Your task to perform on an android device: Open the calendar app, open the side menu, and click the "Day" option Image 0: 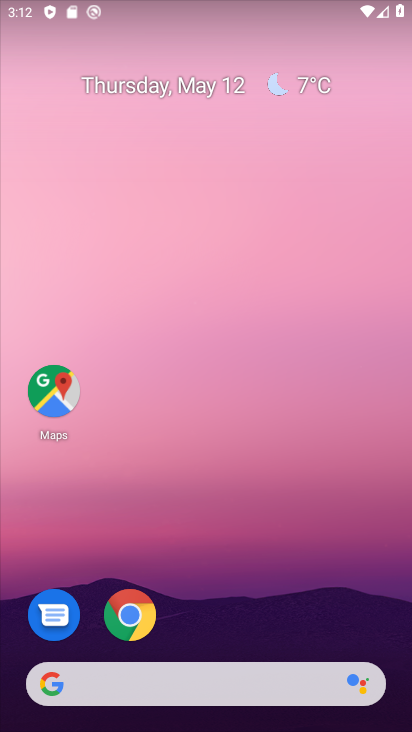
Step 0: drag from (225, 622) to (210, 0)
Your task to perform on an android device: Open the calendar app, open the side menu, and click the "Day" option Image 1: 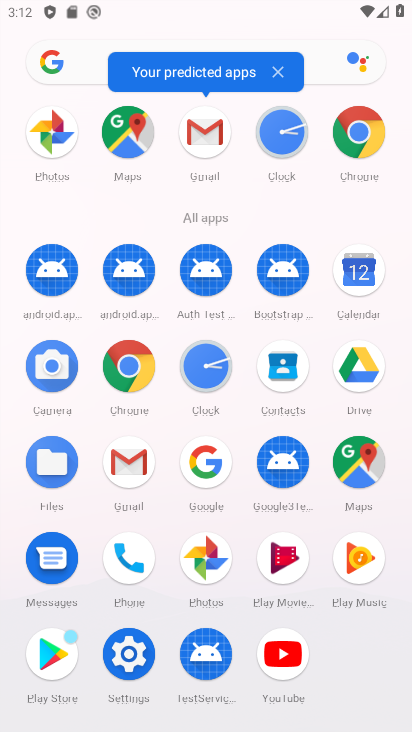
Step 1: click (351, 268)
Your task to perform on an android device: Open the calendar app, open the side menu, and click the "Day" option Image 2: 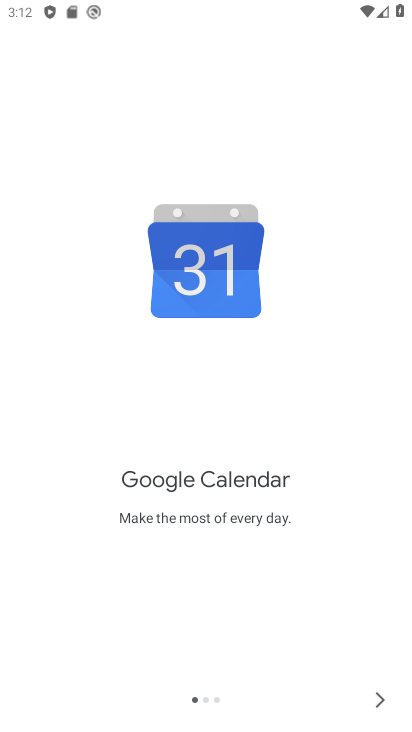
Step 2: click (380, 694)
Your task to perform on an android device: Open the calendar app, open the side menu, and click the "Day" option Image 3: 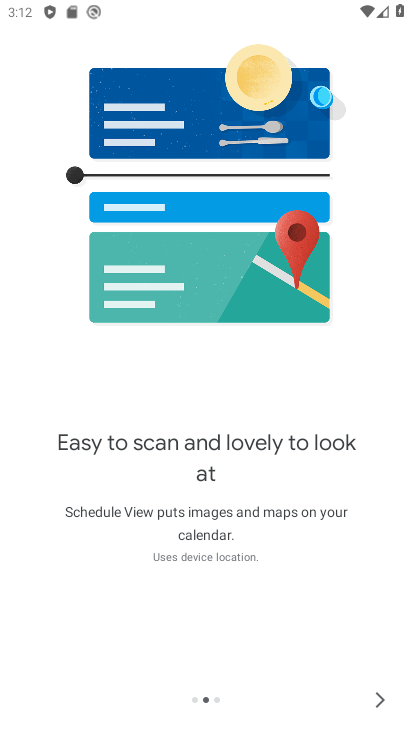
Step 3: click (381, 694)
Your task to perform on an android device: Open the calendar app, open the side menu, and click the "Day" option Image 4: 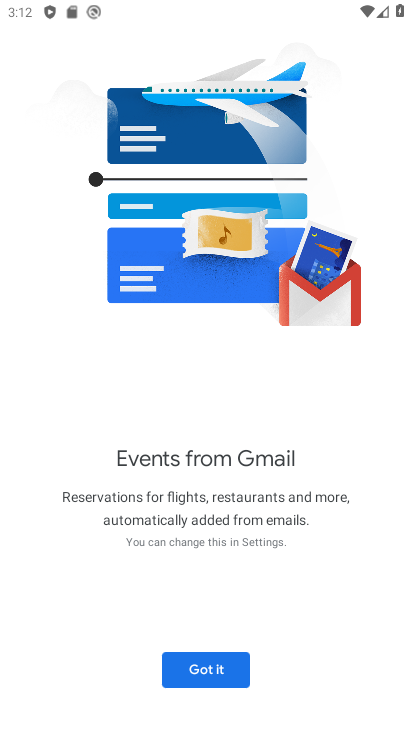
Step 4: click (205, 683)
Your task to perform on an android device: Open the calendar app, open the side menu, and click the "Day" option Image 5: 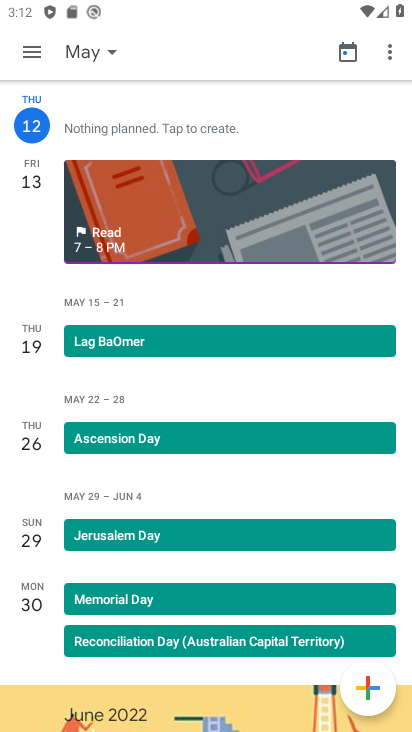
Step 5: click (29, 57)
Your task to perform on an android device: Open the calendar app, open the side menu, and click the "Day" option Image 6: 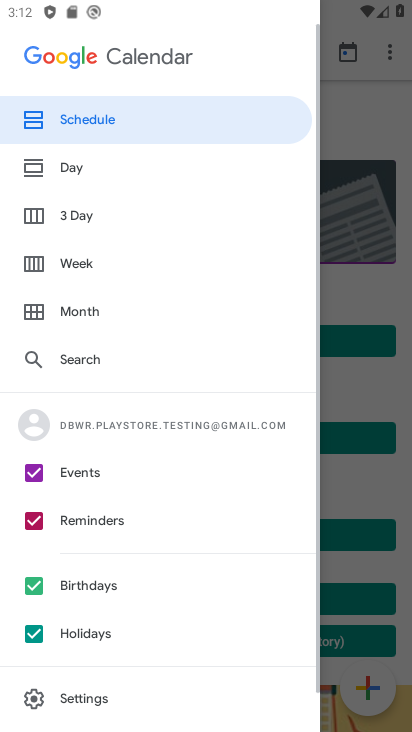
Step 6: click (71, 171)
Your task to perform on an android device: Open the calendar app, open the side menu, and click the "Day" option Image 7: 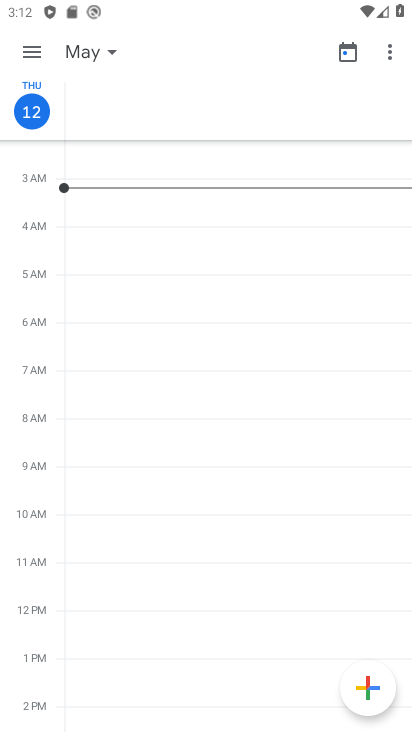
Step 7: task complete